Your task to perform on an android device: open sync settings in chrome Image 0: 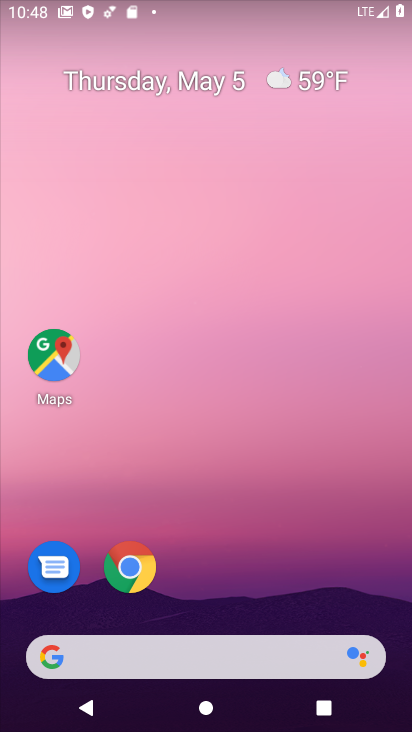
Step 0: click (127, 572)
Your task to perform on an android device: open sync settings in chrome Image 1: 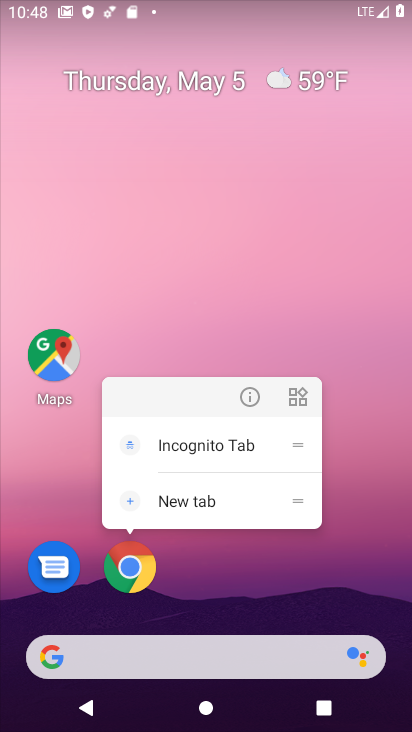
Step 1: click (125, 573)
Your task to perform on an android device: open sync settings in chrome Image 2: 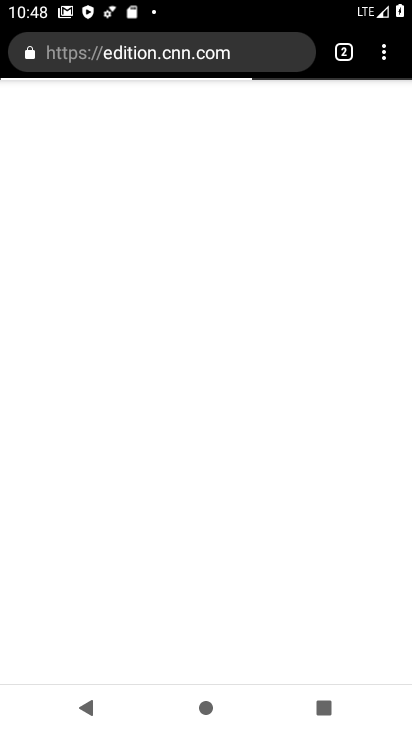
Step 2: drag from (382, 45) to (213, 580)
Your task to perform on an android device: open sync settings in chrome Image 3: 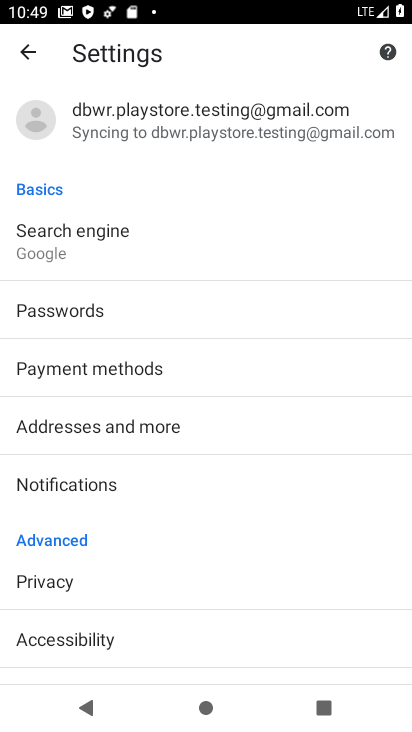
Step 3: click (141, 131)
Your task to perform on an android device: open sync settings in chrome Image 4: 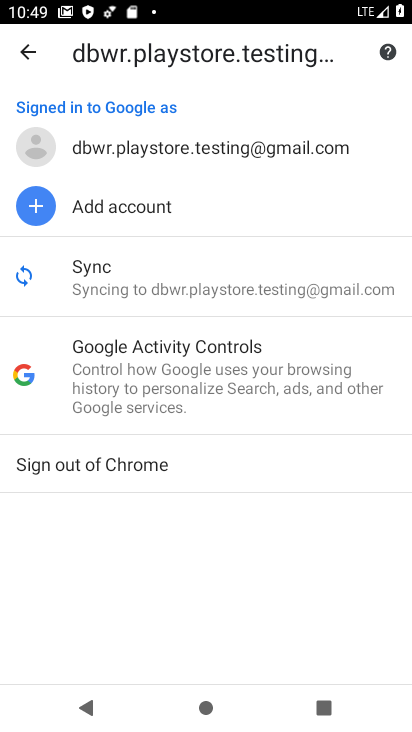
Step 4: task complete